Your task to perform on an android device: Open Google Chrome and open the bookmarks view Image 0: 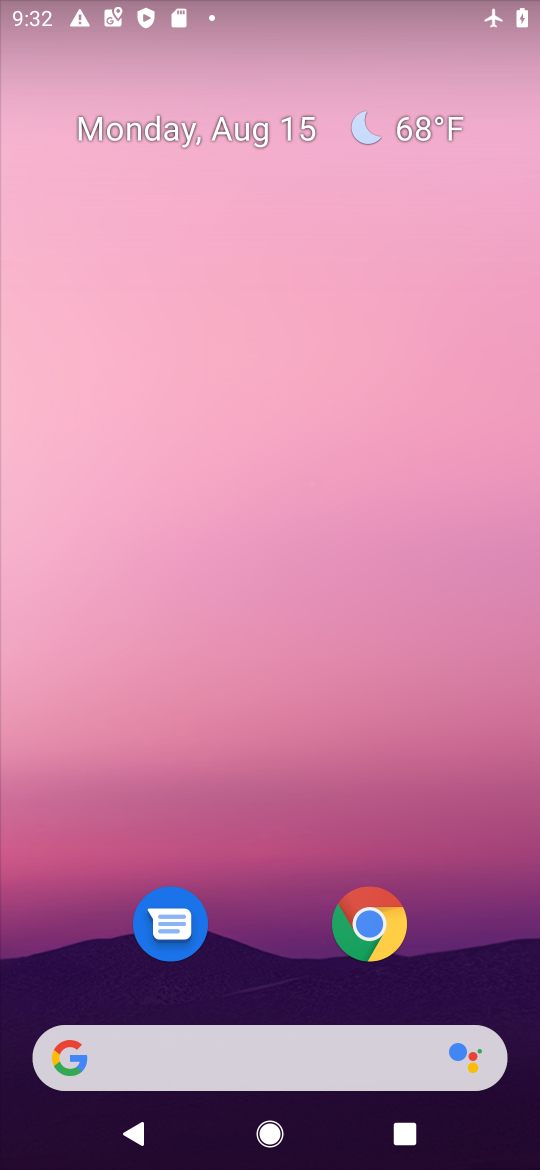
Step 0: click (371, 925)
Your task to perform on an android device: Open Google Chrome and open the bookmarks view Image 1: 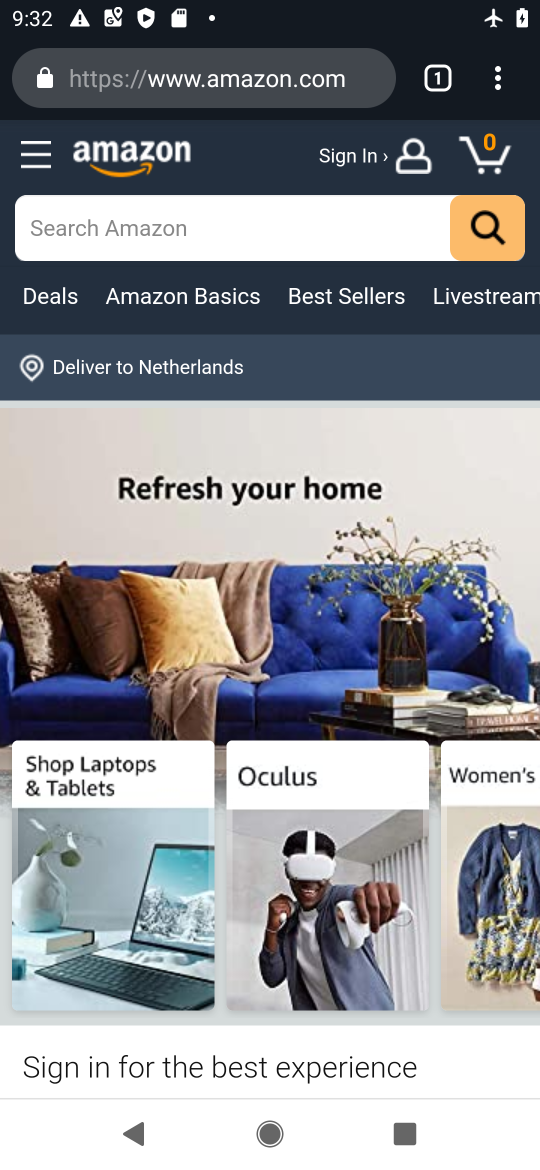
Step 1: click (490, 88)
Your task to perform on an android device: Open Google Chrome and open the bookmarks view Image 2: 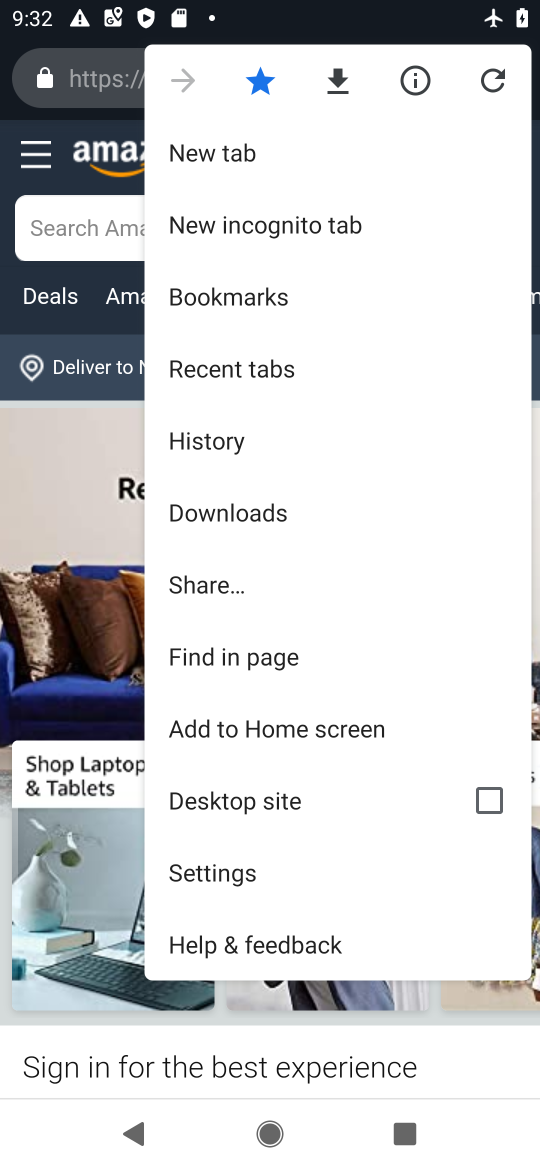
Step 2: click (237, 299)
Your task to perform on an android device: Open Google Chrome and open the bookmarks view Image 3: 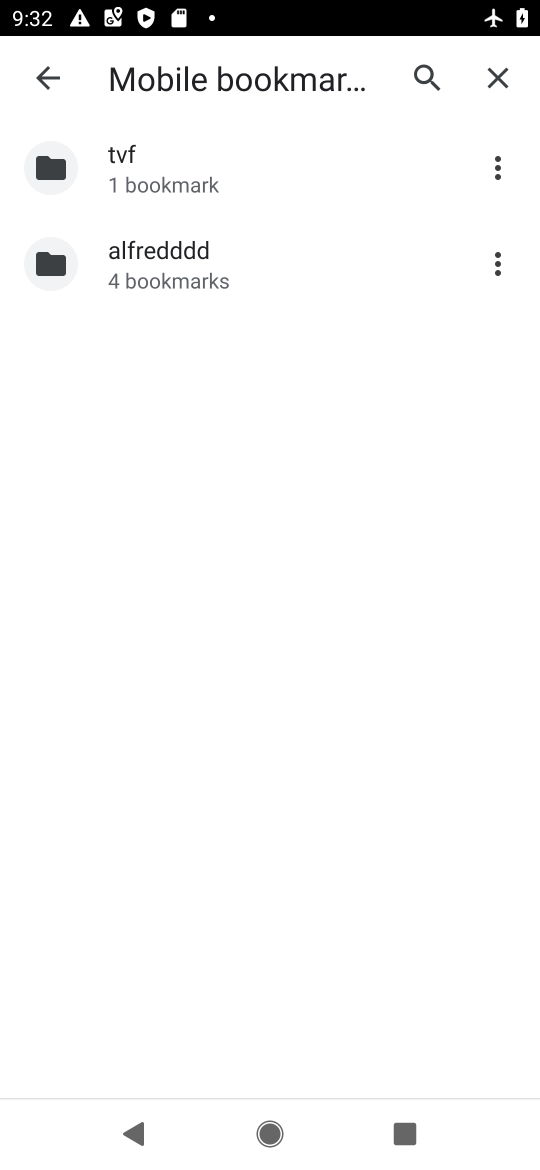
Step 3: task complete